Your task to perform on an android device: What's the weather going to be tomorrow? Image 0: 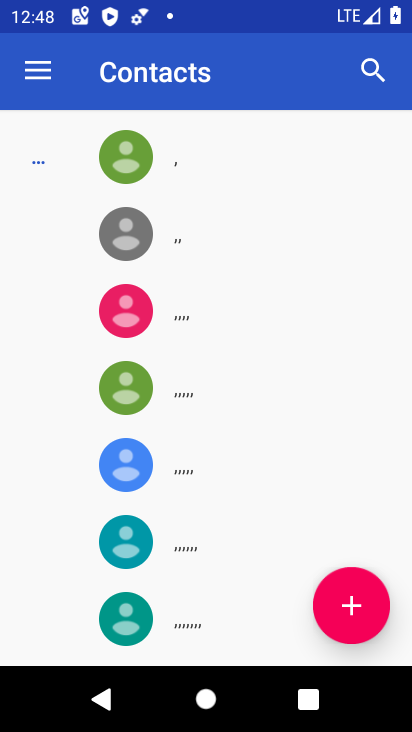
Step 0: press home button
Your task to perform on an android device: What's the weather going to be tomorrow? Image 1: 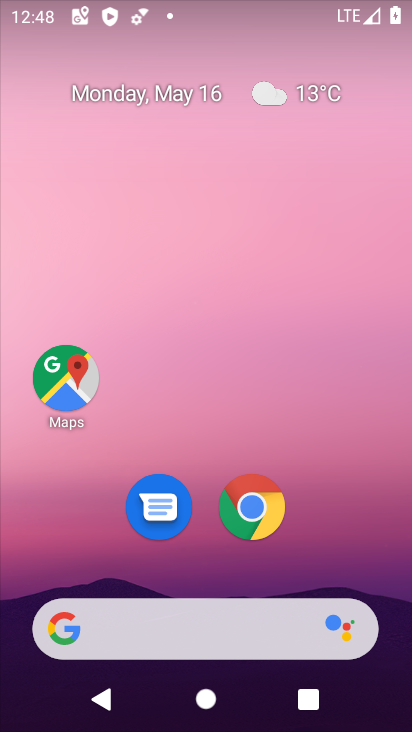
Step 1: click (299, 90)
Your task to perform on an android device: What's the weather going to be tomorrow? Image 2: 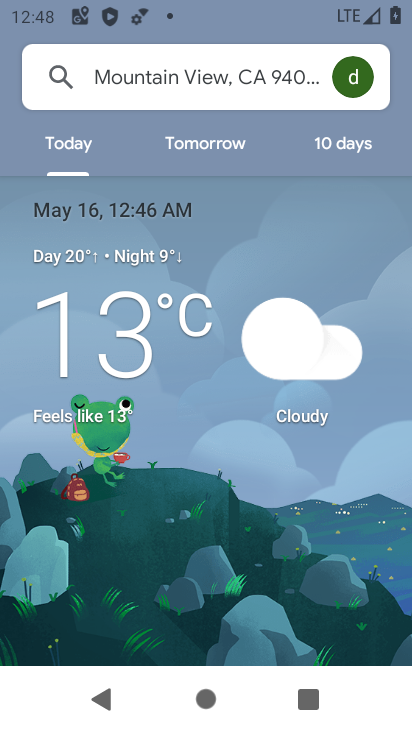
Step 2: task complete